Your task to perform on an android device: What's the weather going to be tomorrow? Image 0: 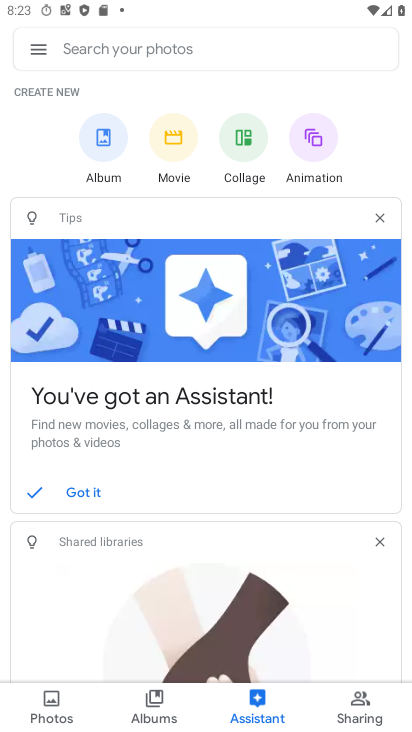
Step 0: press home button
Your task to perform on an android device: What's the weather going to be tomorrow? Image 1: 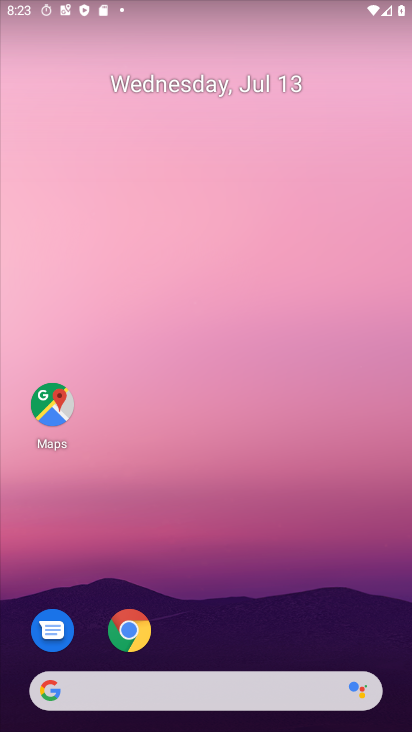
Step 1: click (211, 681)
Your task to perform on an android device: What's the weather going to be tomorrow? Image 2: 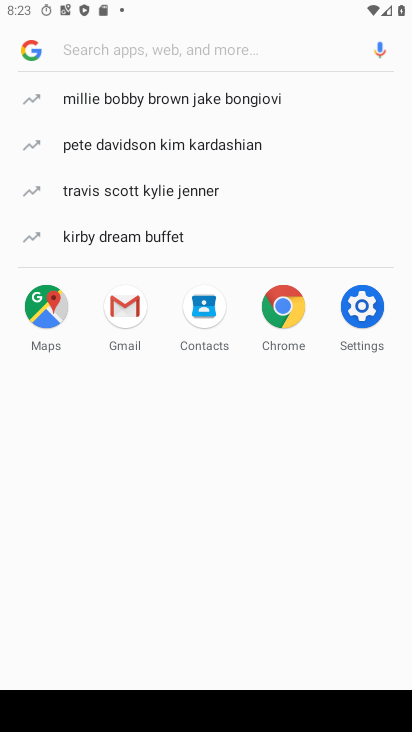
Step 2: type "weather"
Your task to perform on an android device: What's the weather going to be tomorrow? Image 3: 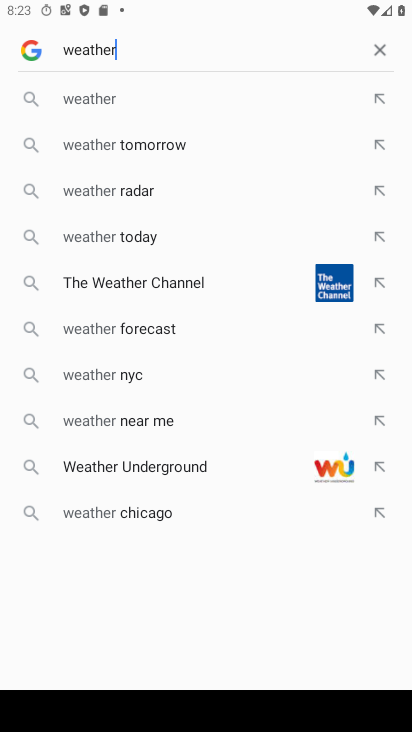
Step 3: click (166, 88)
Your task to perform on an android device: What's the weather going to be tomorrow? Image 4: 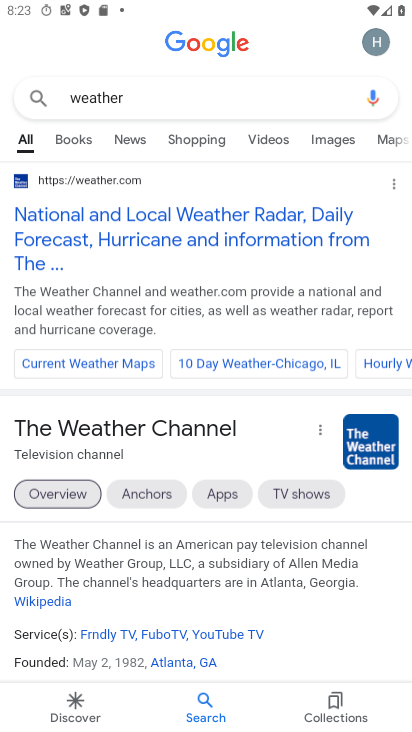
Step 4: task complete